Your task to perform on an android device: Search for Mexican restaurants on Maps Image 0: 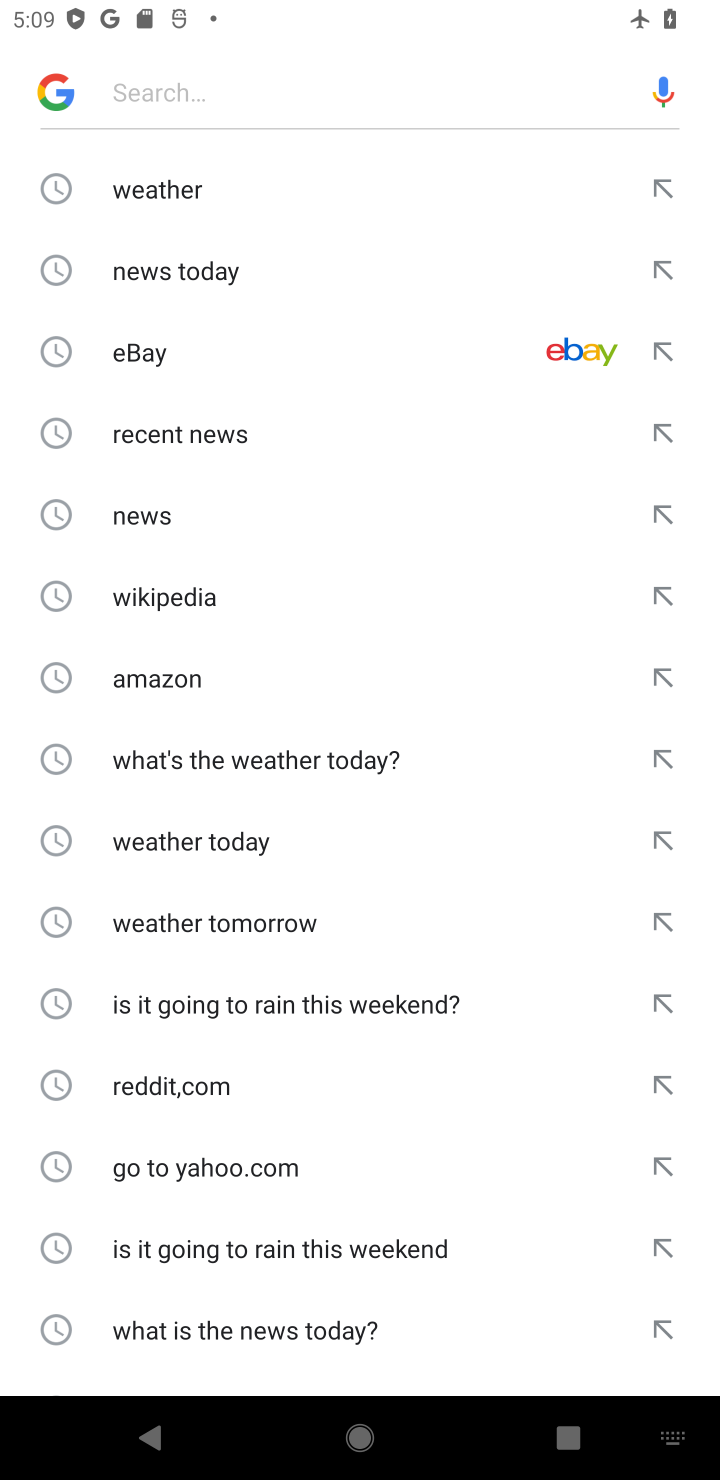
Step 0: press back button
Your task to perform on an android device: Search for Mexican restaurants on Maps Image 1: 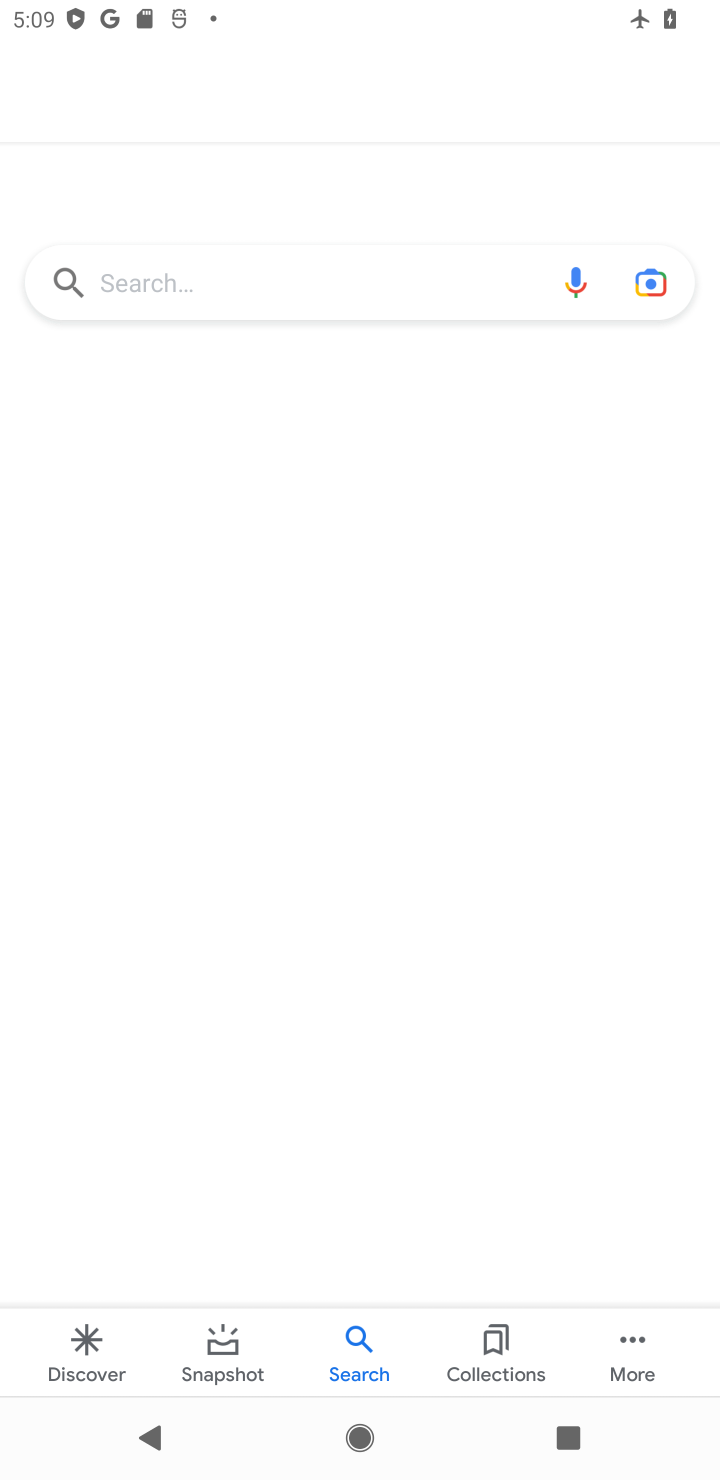
Step 1: press back button
Your task to perform on an android device: Search for Mexican restaurants on Maps Image 2: 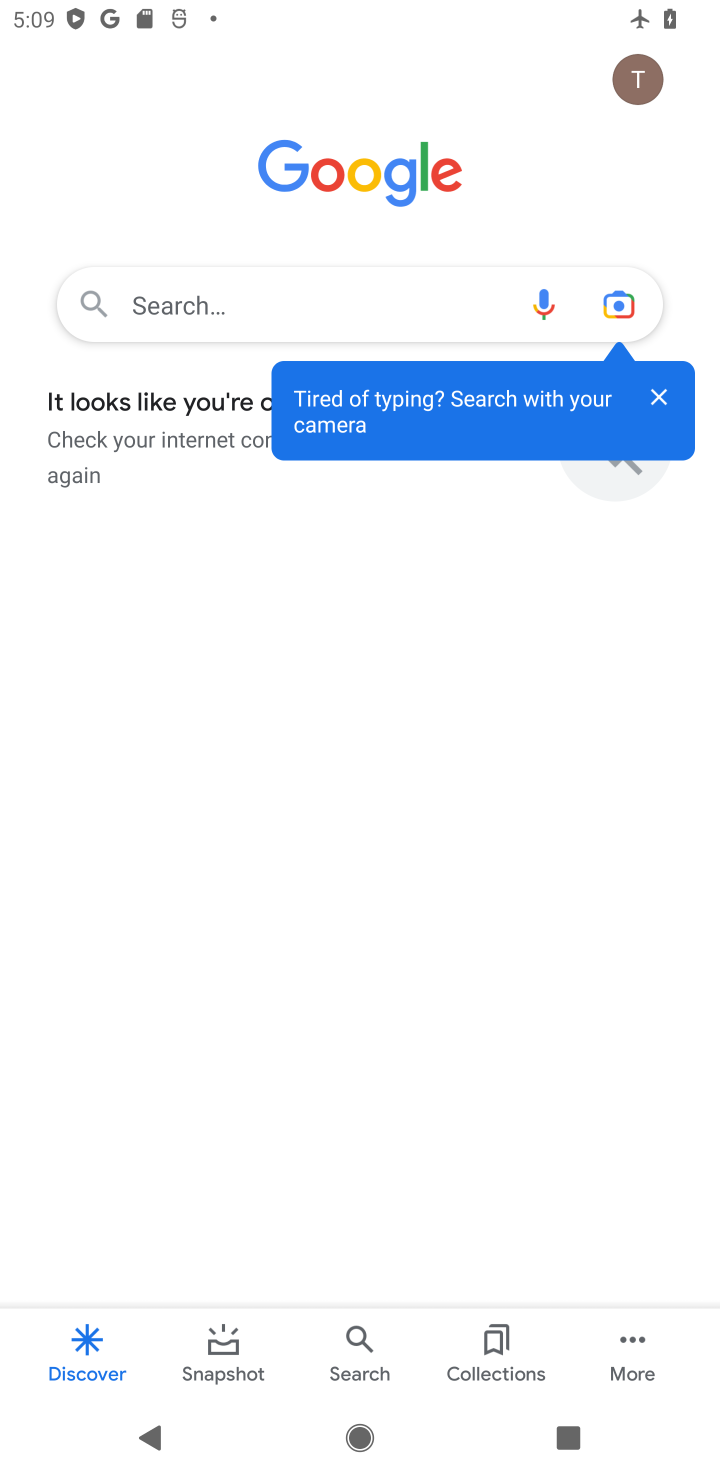
Step 2: press back button
Your task to perform on an android device: Search for Mexican restaurants on Maps Image 3: 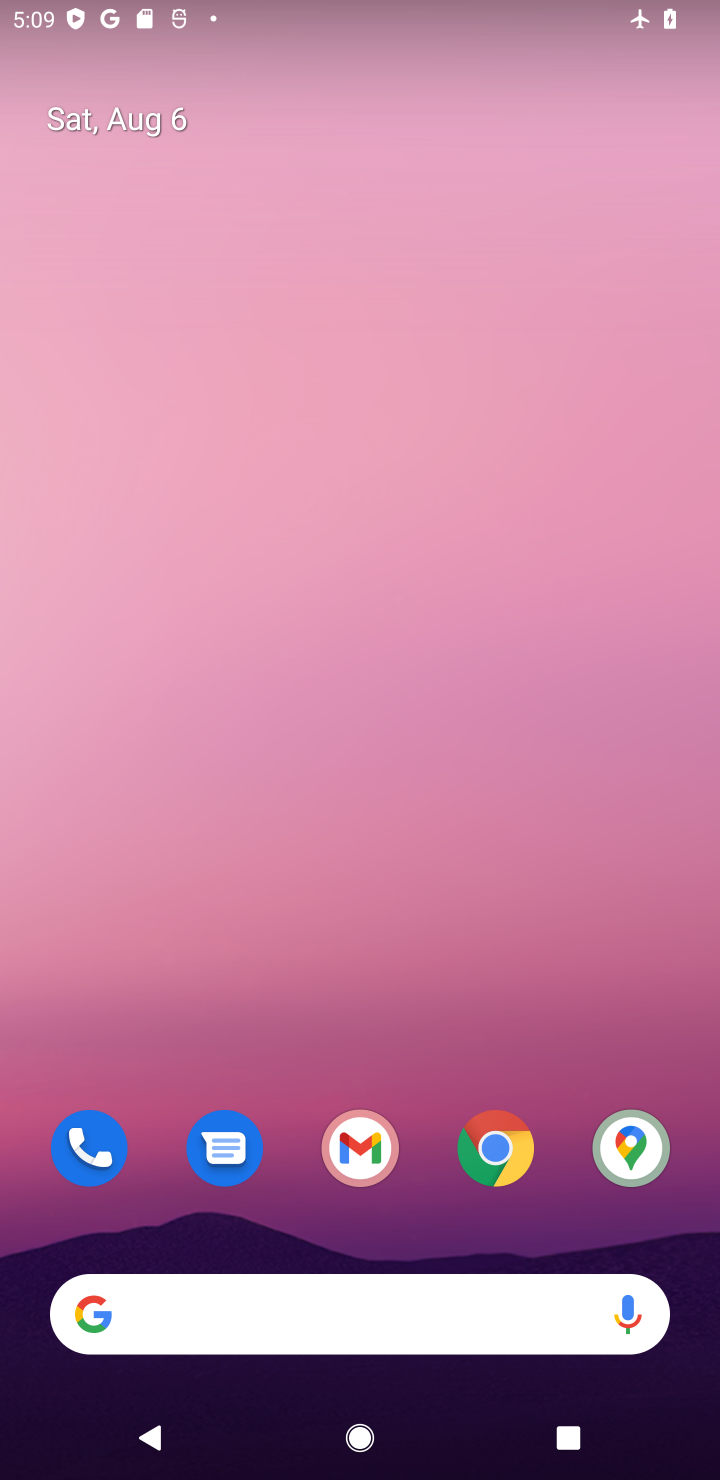
Step 3: drag from (384, 1211) to (314, 53)
Your task to perform on an android device: Search for Mexican restaurants on Maps Image 4: 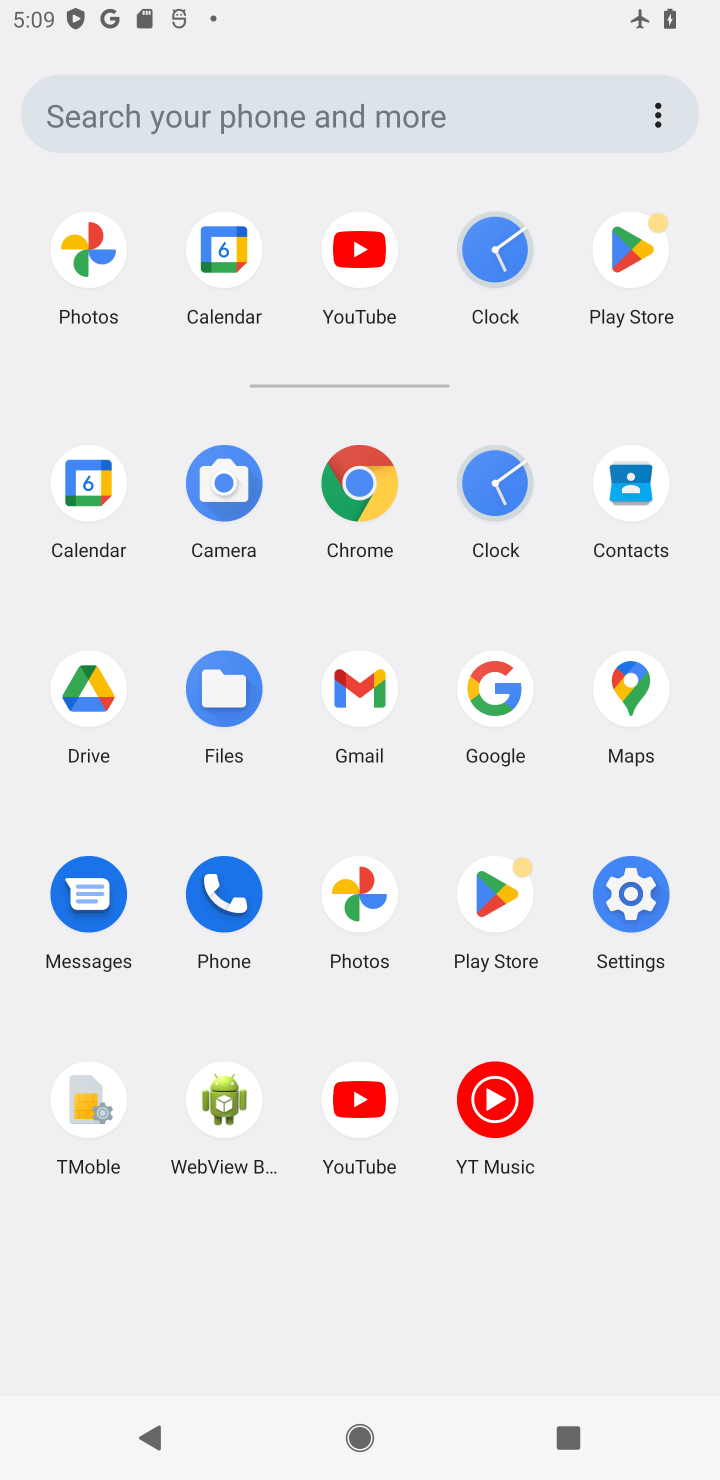
Step 4: click (632, 697)
Your task to perform on an android device: Search for Mexican restaurants on Maps Image 5: 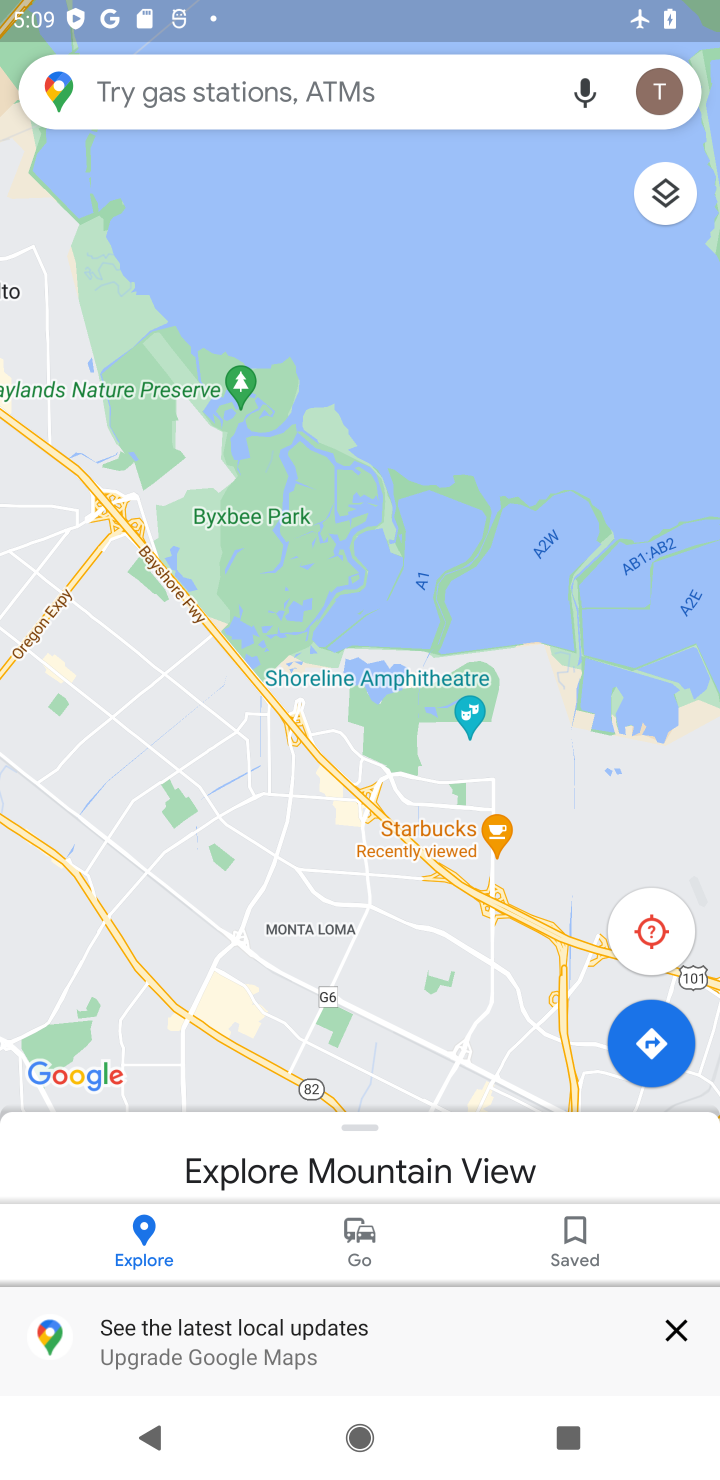
Step 5: click (244, 91)
Your task to perform on an android device: Search for Mexican restaurants on Maps Image 6: 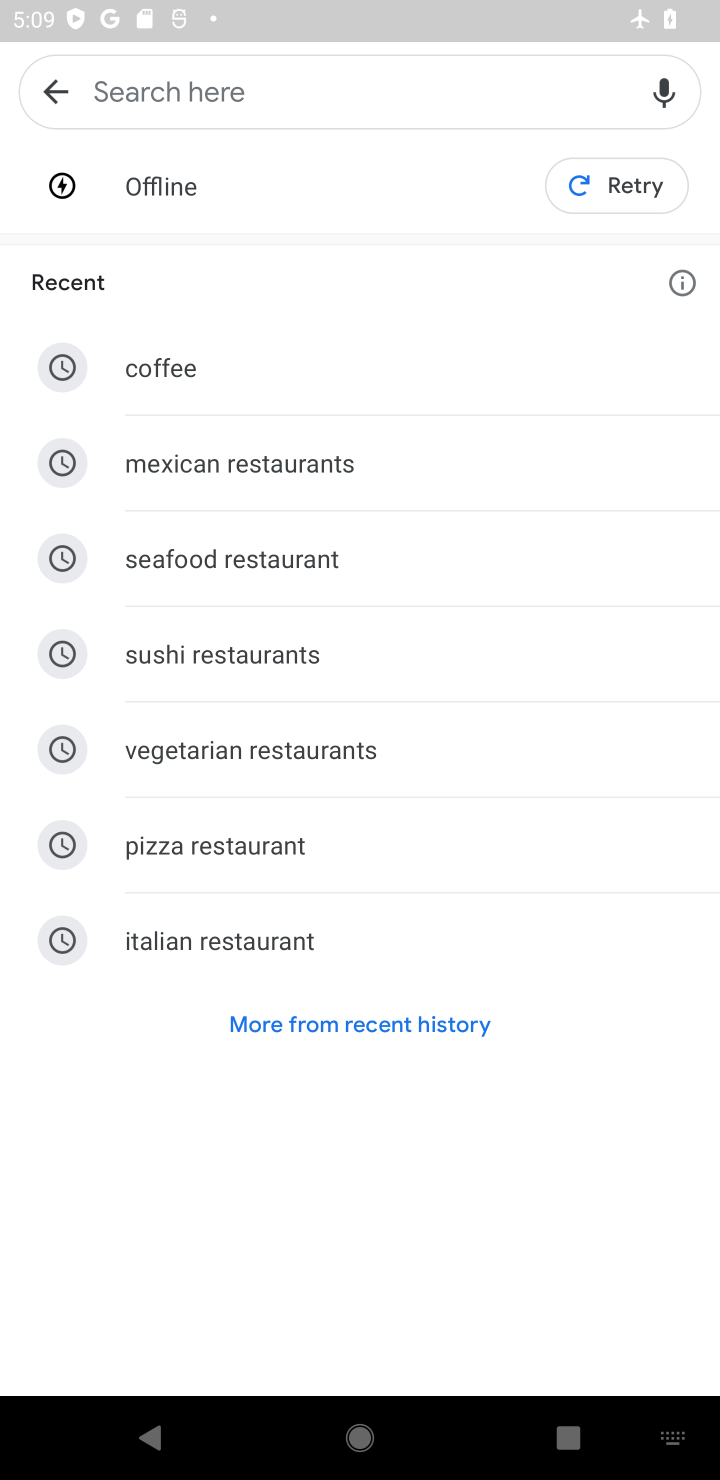
Step 6: click (203, 477)
Your task to perform on an android device: Search for Mexican restaurants on Maps Image 7: 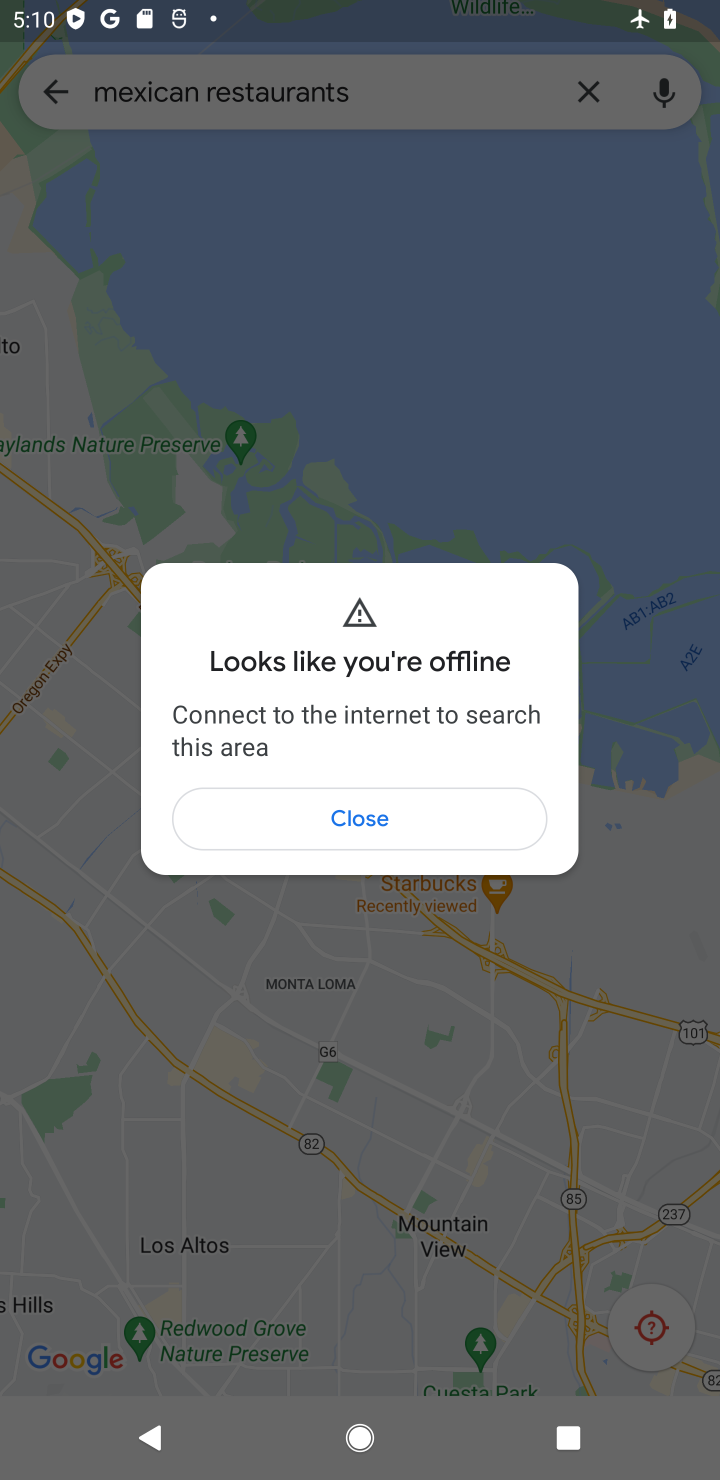
Step 7: click (331, 812)
Your task to perform on an android device: Search for Mexican restaurants on Maps Image 8: 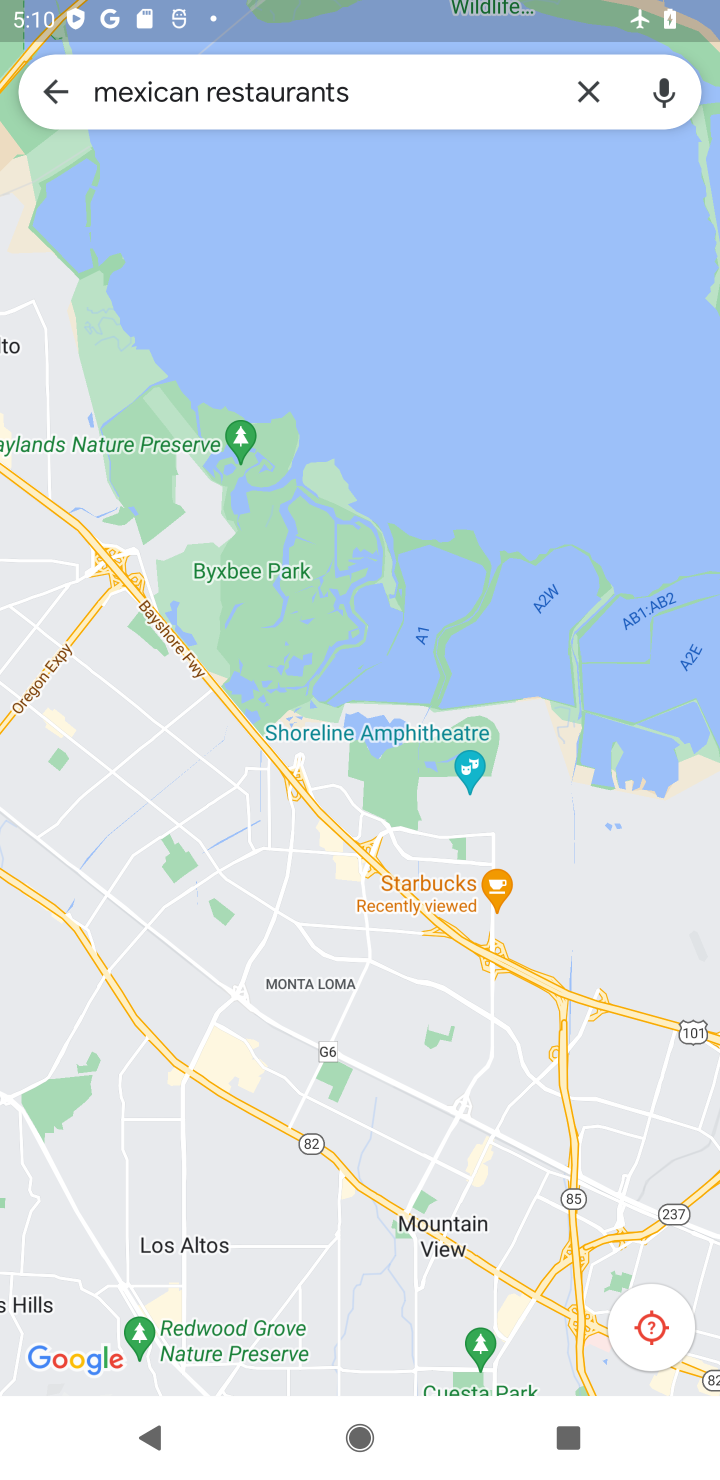
Step 8: task complete